Your task to perform on an android device: open app "LiveIn - Share Your Moment" (install if not already installed) and go to login screen Image 0: 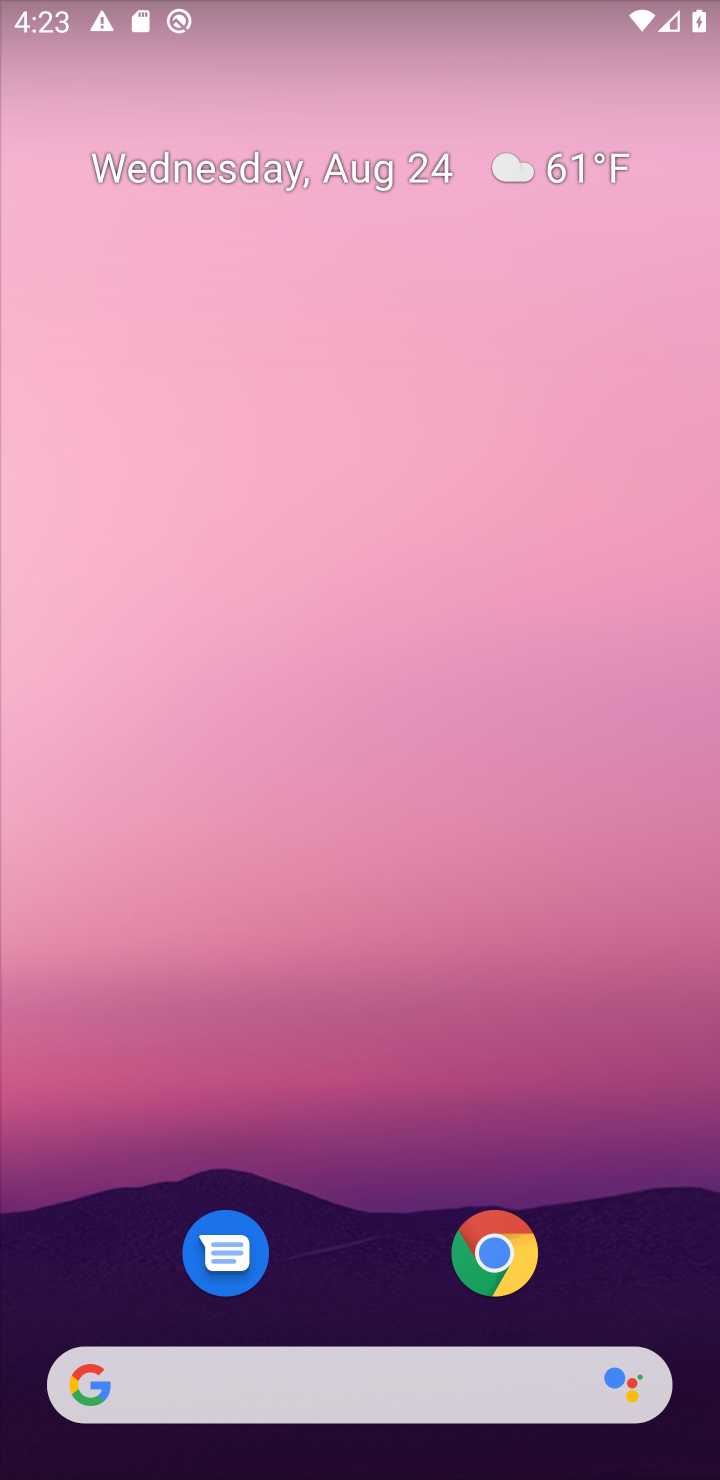
Step 0: drag from (329, 1305) to (501, 106)
Your task to perform on an android device: open app "LiveIn - Share Your Moment" (install if not already installed) and go to login screen Image 1: 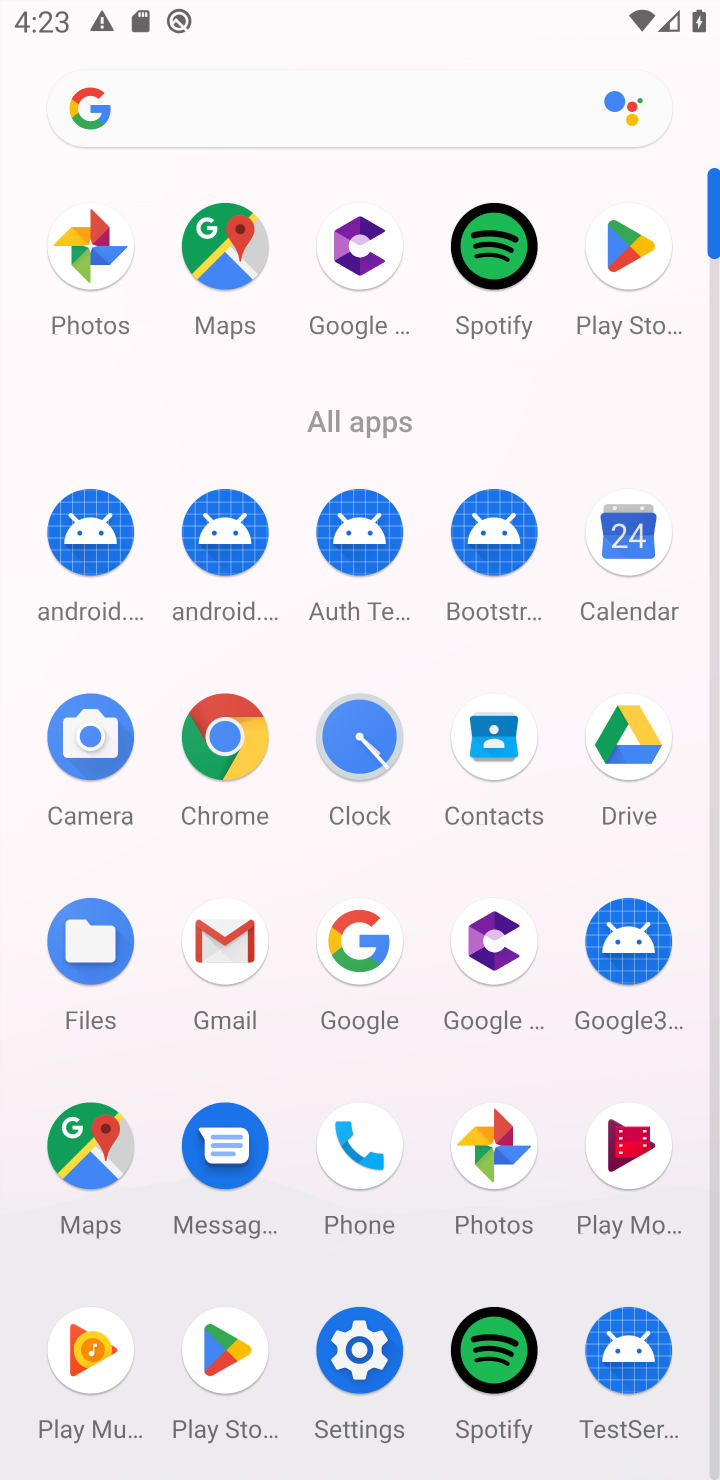
Step 1: click (659, 248)
Your task to perform on an android device: open app "LiveIn - Share Your Moment" (install if not already installed) and go to login screen Image 2: 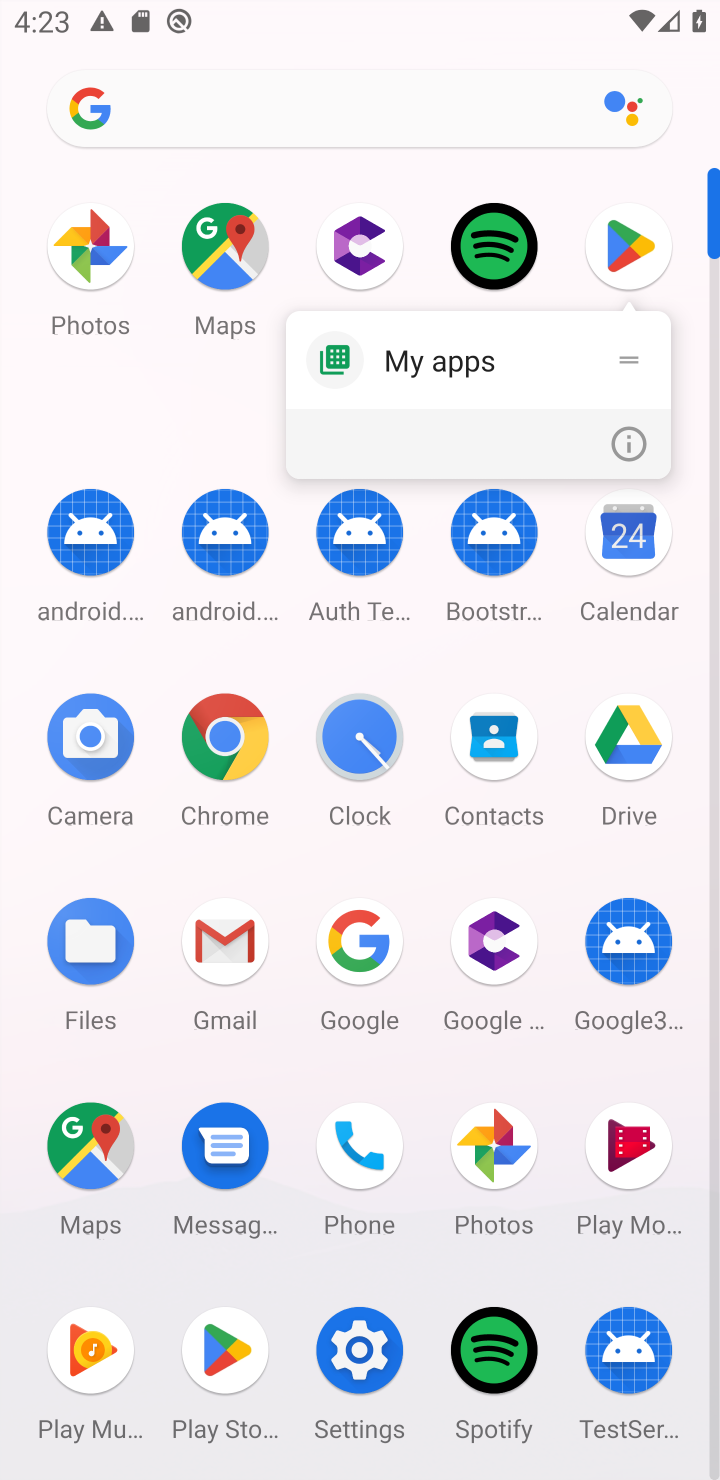
Step 2: click (621, 234)
Your task to perform on an android device: open app "LiveIn - Share Your Moment" (install if not already installed) and go to login screen Image 3: 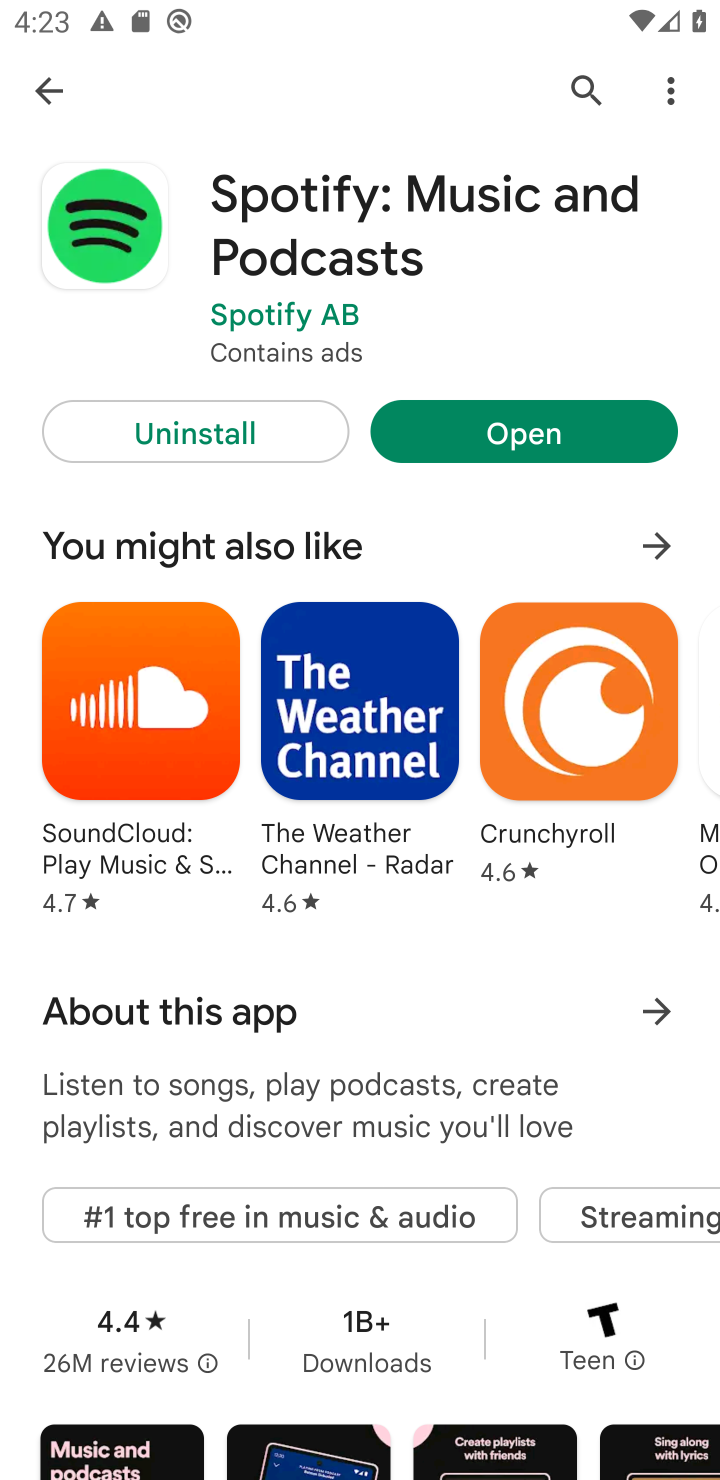
Step 3: click (584, 96)
Your task to perform on an android device: open app "LiveIn - Share Your Moment" (install if not already installed) and go to login screen Image 4: 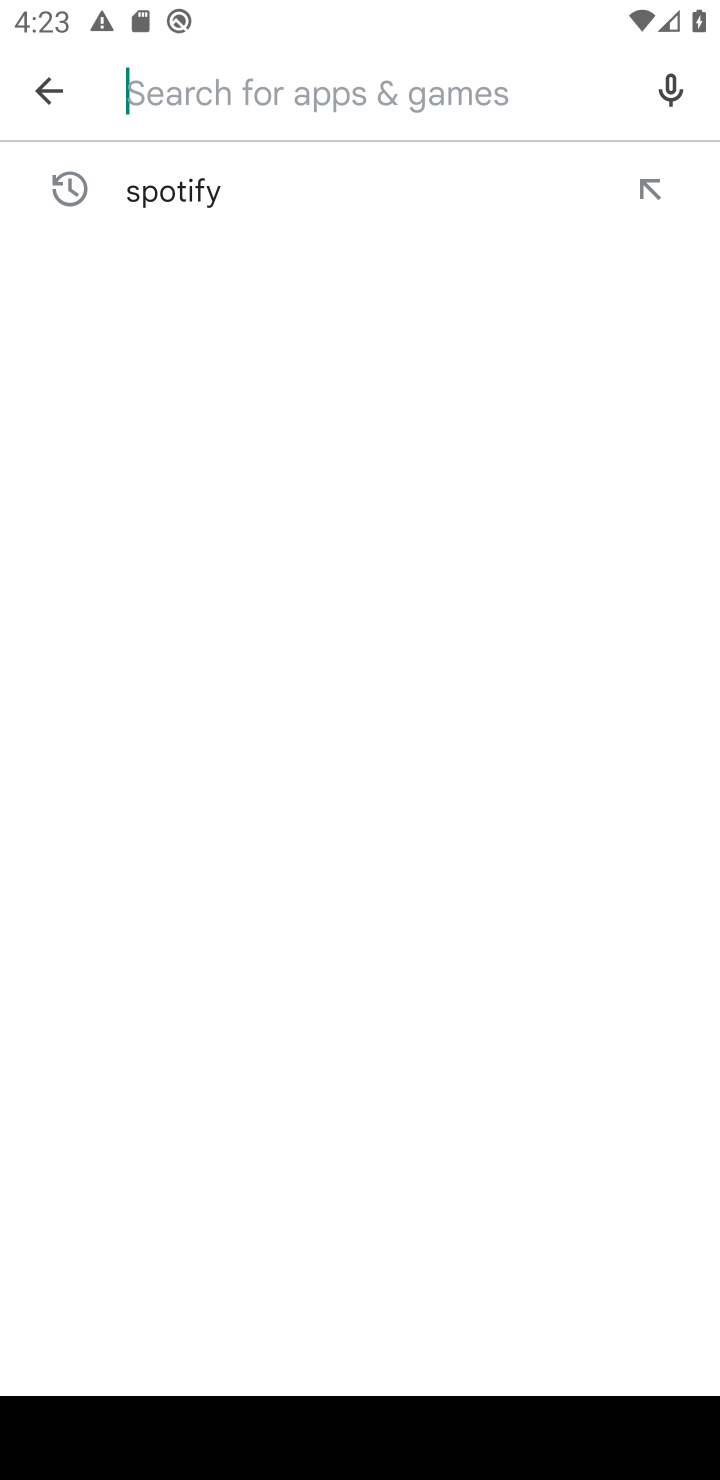
Step 4: click (426, 87)
Your task to perform on an android device: open app "LiveIn - Share Your Moment" (install if not already installed) and go to login screen Image 5: 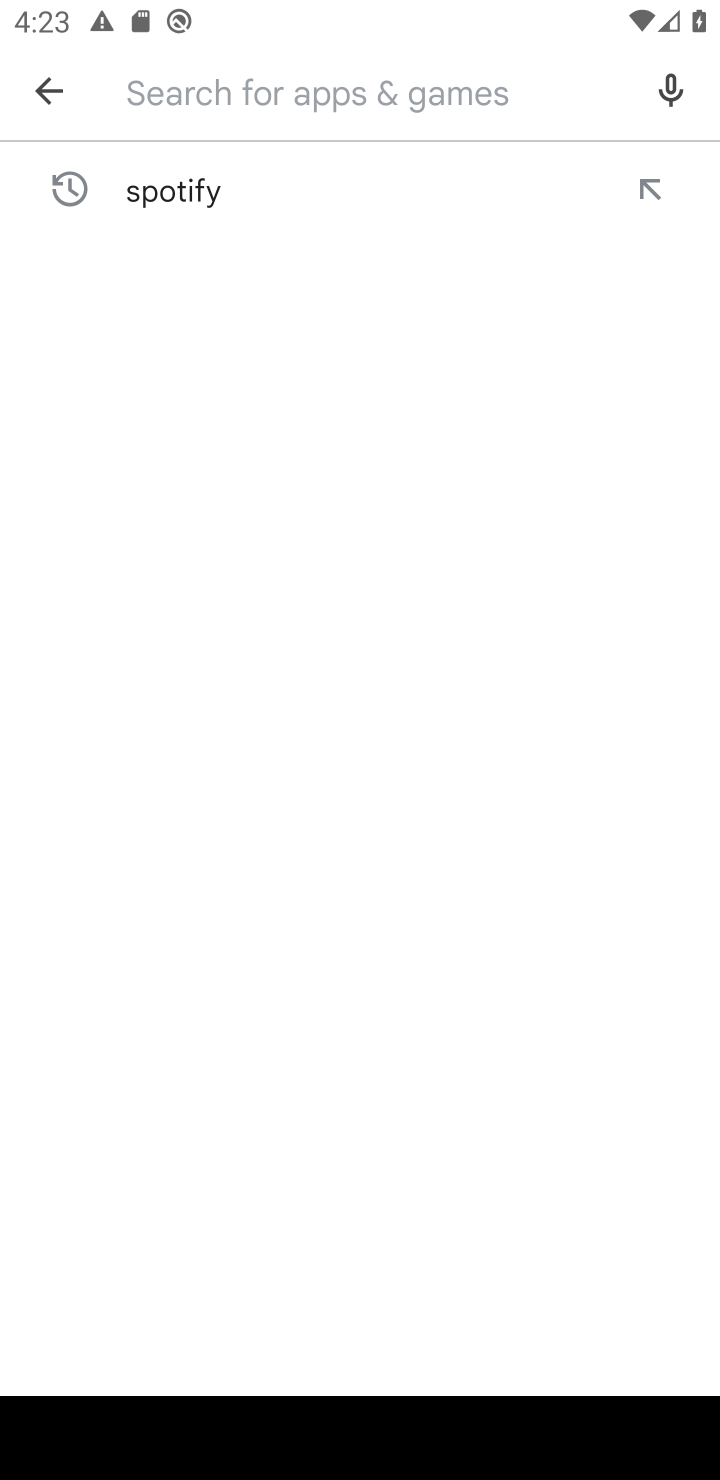
Step 5: type "livein"
Your task to perform on an android device: open app "LiveIn - Share Your Moment" (install if not already installed) and go to login screen Image 6: 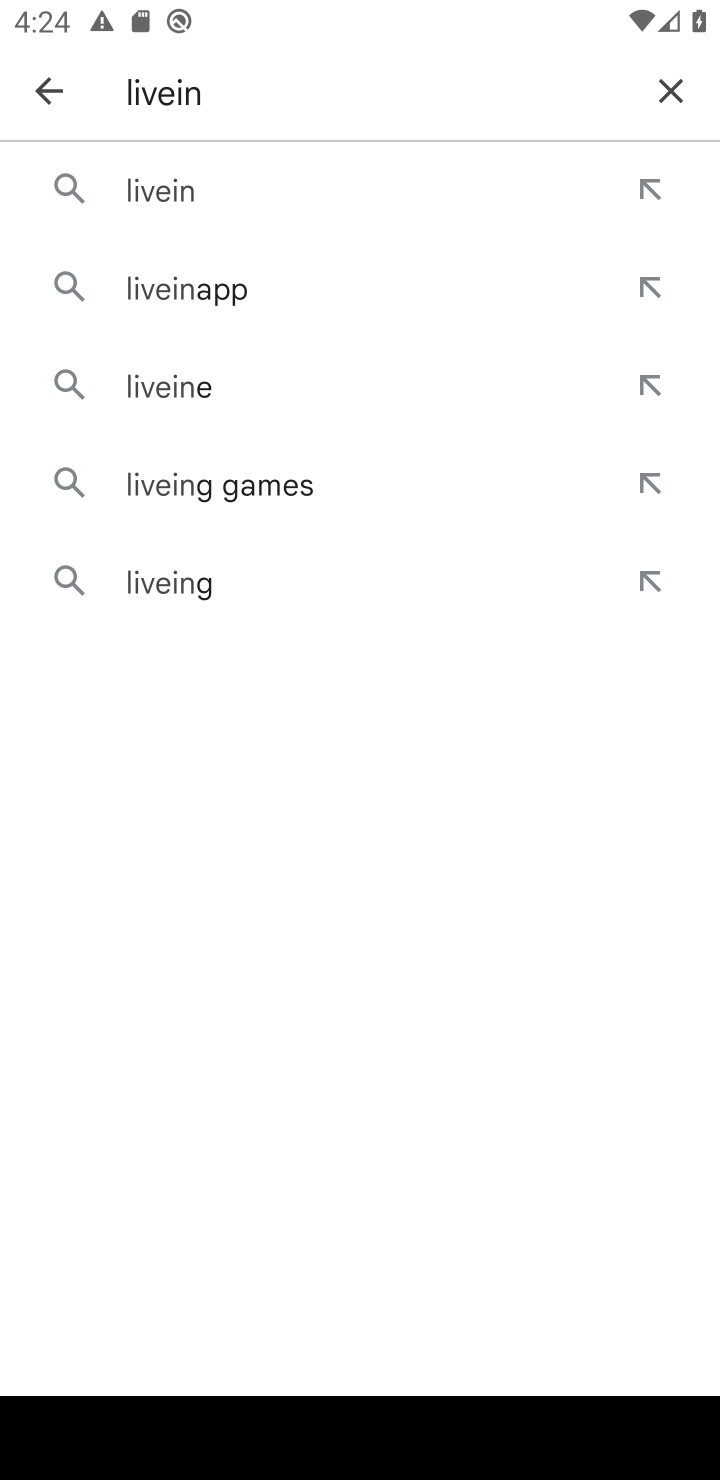
Step 6: click (201, 192)
Your task to perform on an android device: open app "LiveIn - Share Your Moment" (install if not already installed) and go to login screen Image 7: 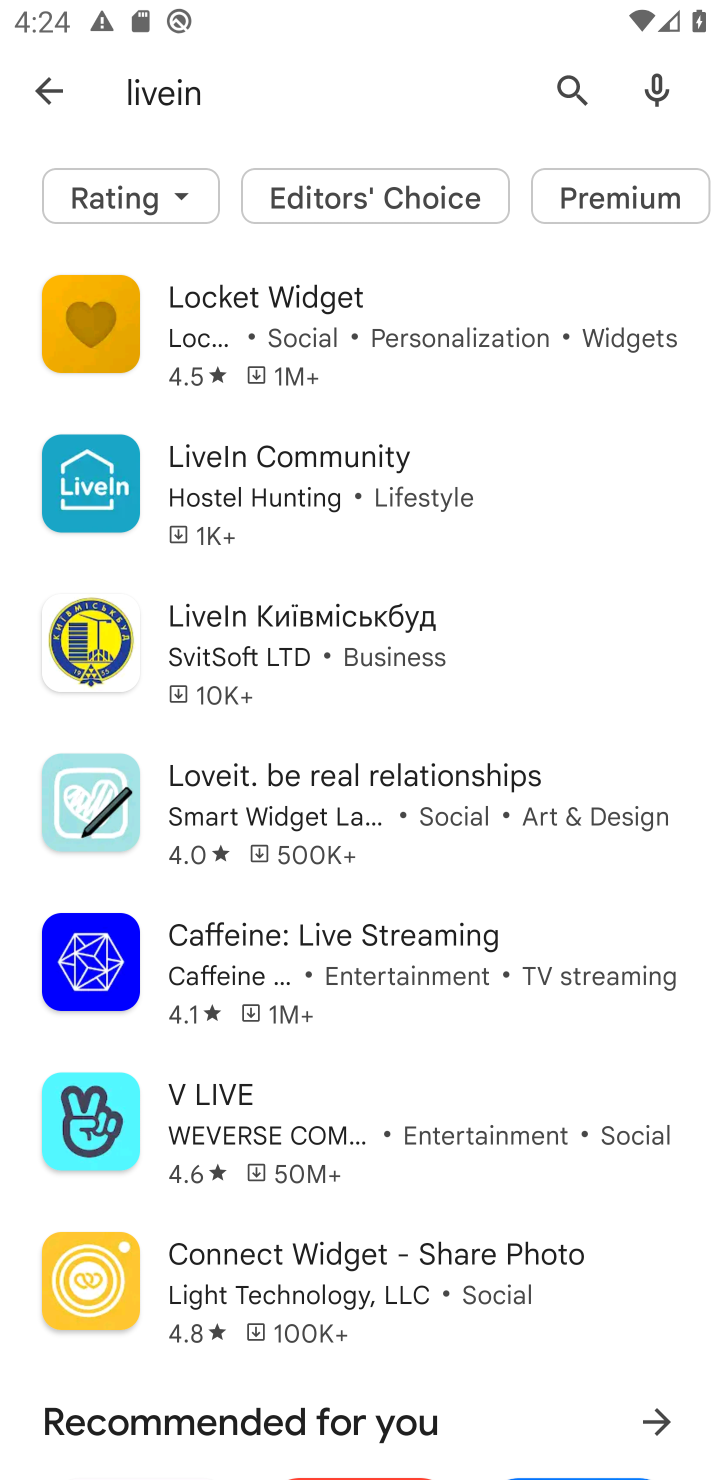
Step 7: click (365, 466)
Your task to perform on an android device: open app "LiveIn - Share Your Moment" (install if not already installed) and go to login screen Image 8: 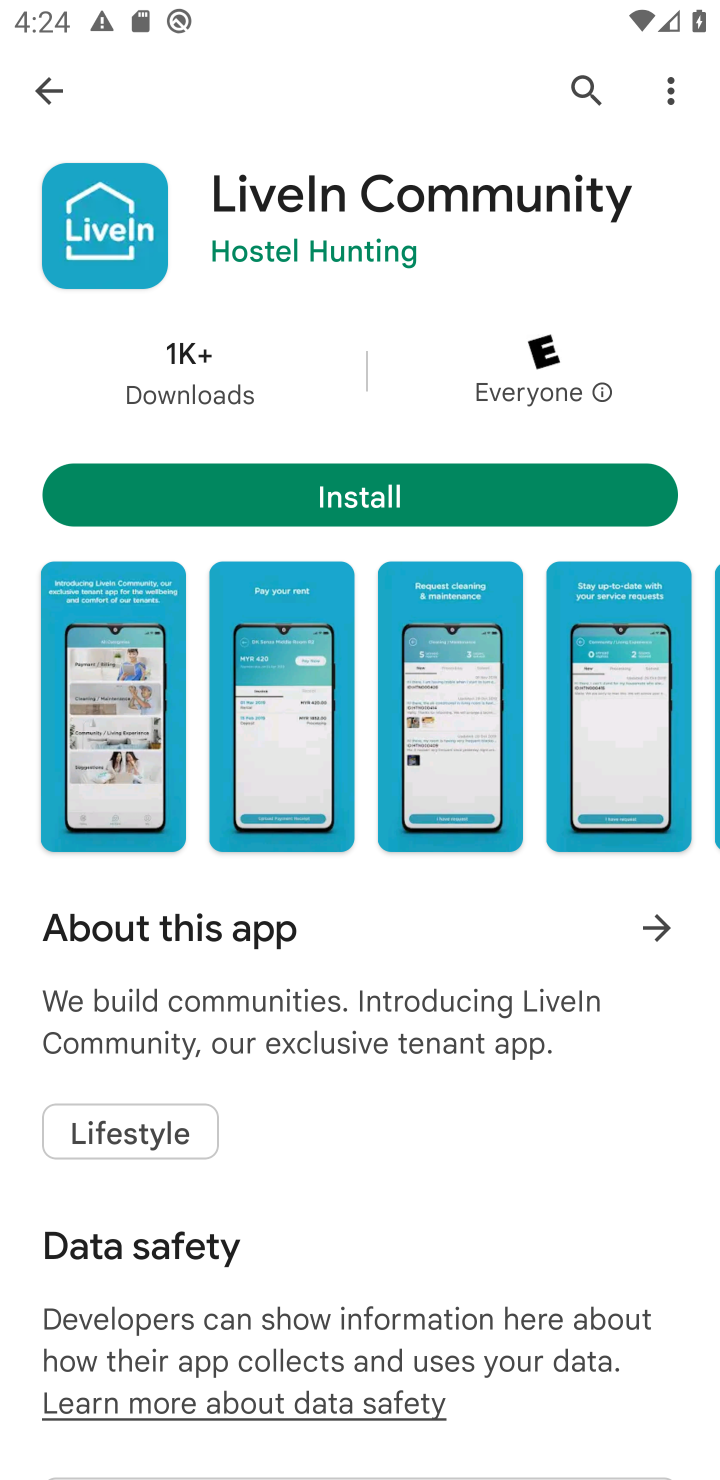
Step 8: task complete